Your task to perform on an android device: add a label to a message in the gmail app Image 0: 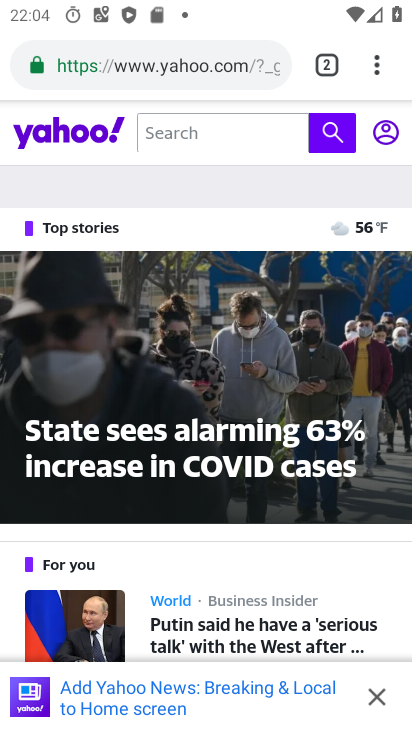
Step 0: press home button
Your task to perform on an android device: add a label to a message in the gmail app Image 1: 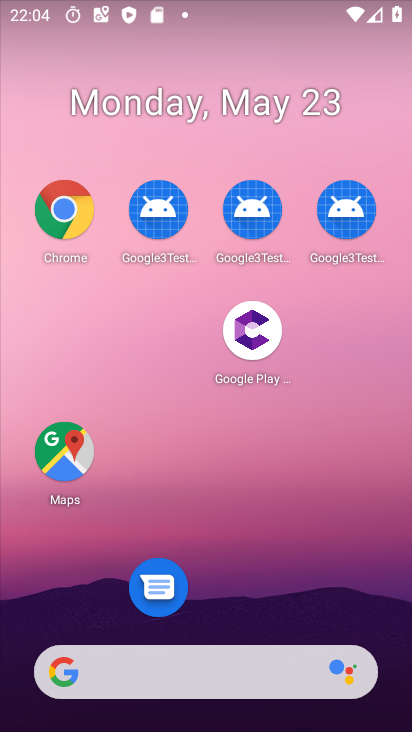
Step 1: drag from (259, 580) to (205, 175)
Your task to perform on an android device: add a label to a message in the gmail app Image 2: 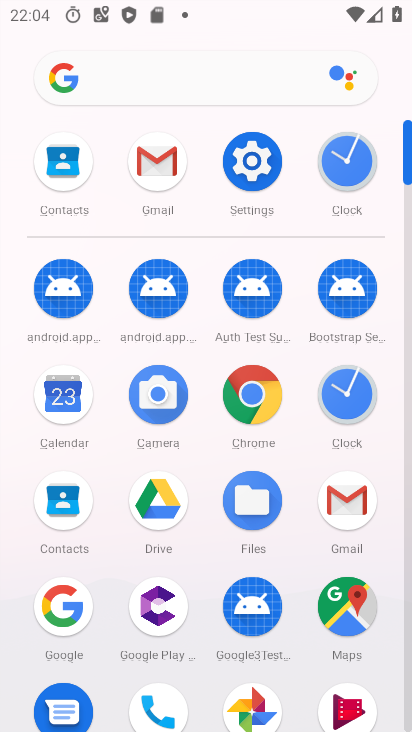
Step 2: click (346, 506)
Your task to perform on an android device: add a label to a message in the gmail app Image 3: 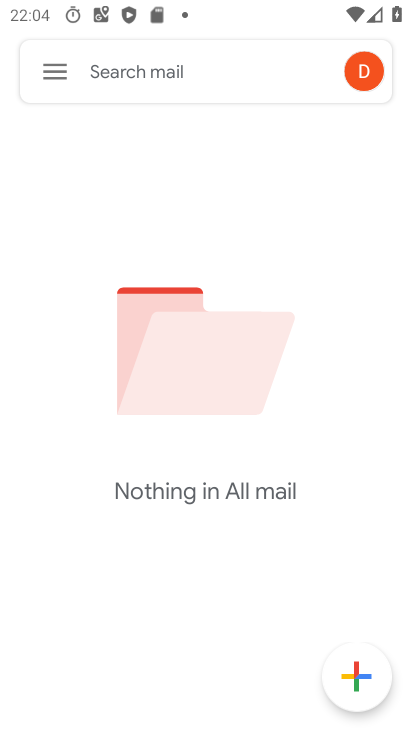
Step 3: click (59, 75)
Your task to perform on an android device: add a label to a message in the gmail app Image 4: 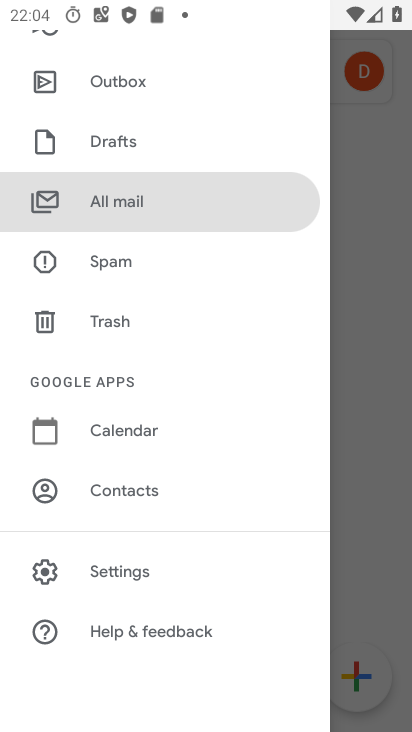
Step 4: click (112, 200)
Your task to perform on an android device: add a label to a message in the gmail app Image 5: 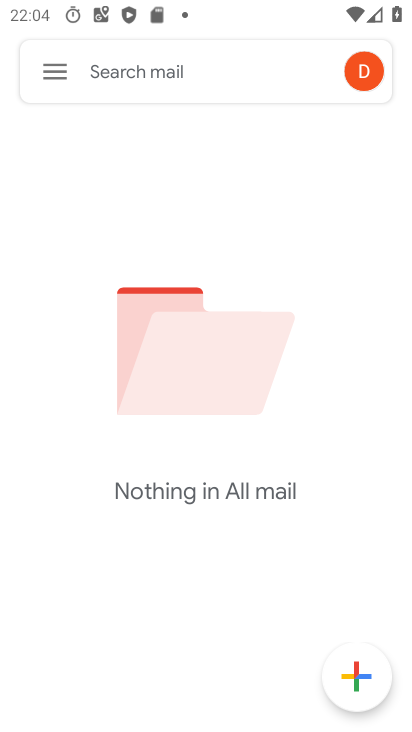
Step 5: task complete